Your task to perform on an android device: delete a single message in the gmail app Image 0: 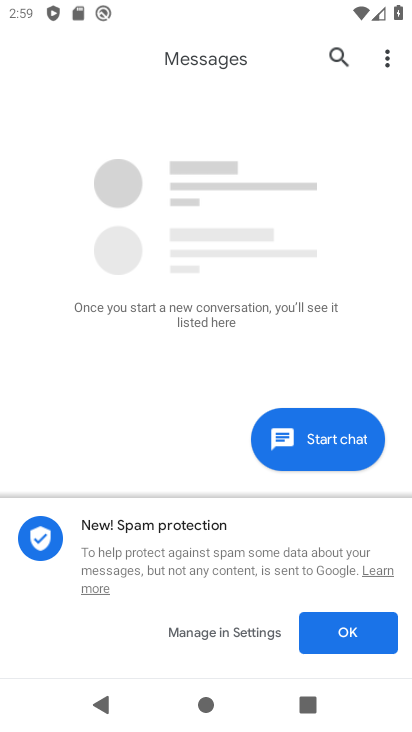
Step 0: press home button
Your task to perform on an android device: delete a single message in the gmail app Image 1: 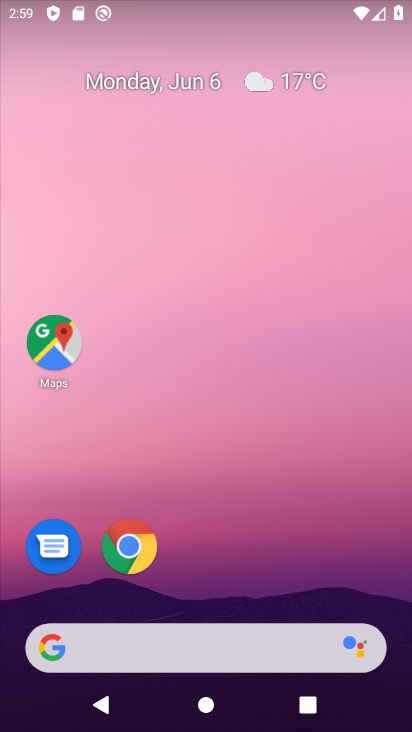
Step 1: drag from (331, 587) to (307, 106)
Your task to perform on an android device: delete a single message in the gmail app Image 2: 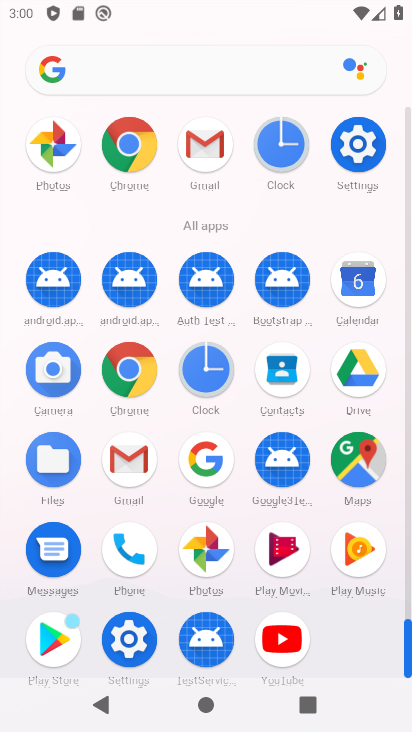
Step 2: click (215, 128)
Your task to perform on an android device: delete a single message in the gmail app Image 3: 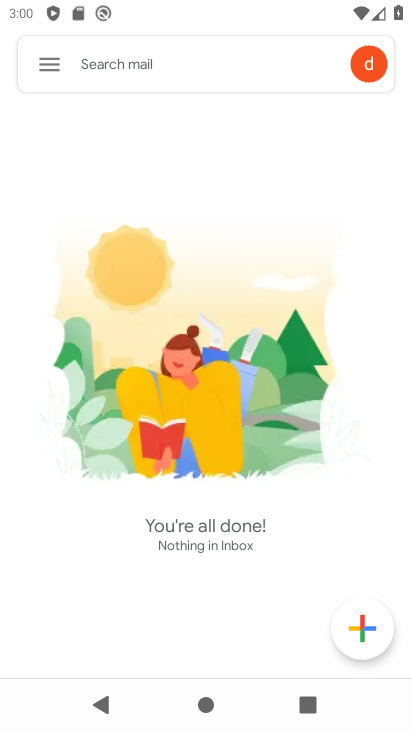
Step 3: task complete